Your task to perform on an android device: change keyboard looks Image 0: 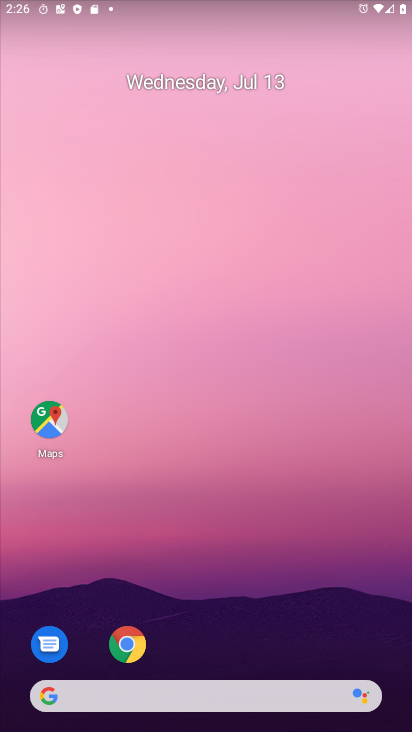
Step 0: drag from (210, 419) to (252, 10)
Your task to perform on an android device: change keyboard looks Image 1: 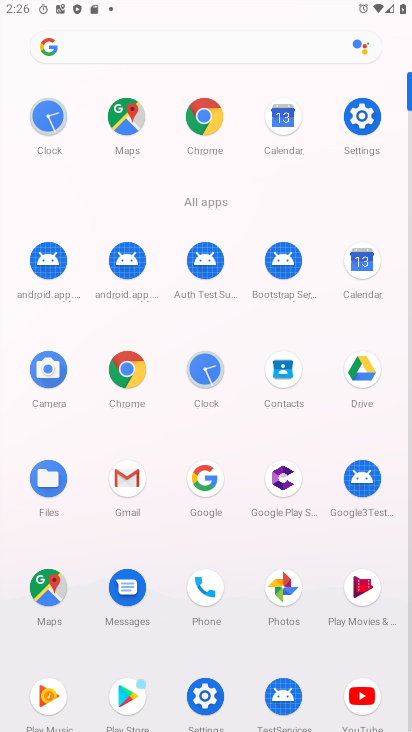
Step 1: click (357, 122)
Your task to perform on an android device: change keyboard looks Image 2: 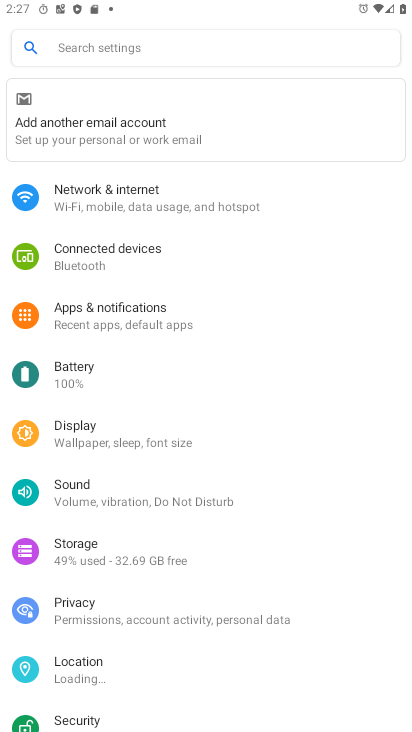
Step 2: drag from (153, 646) to (276, 8)
Your task to perform on an android device: change keyboard looks Image 3: 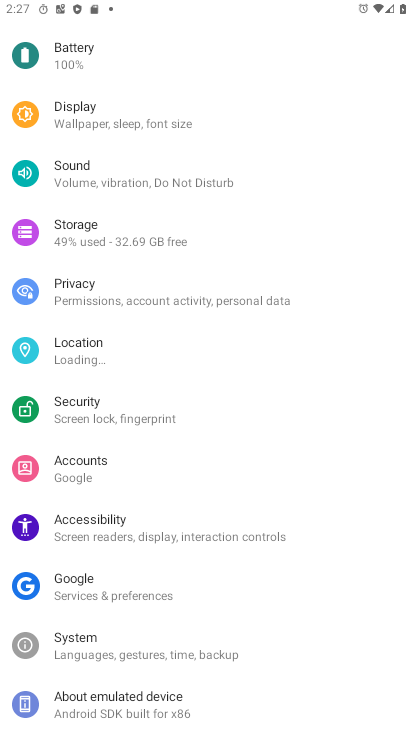
Step 3: click (89, 646)
Your task to perform on an android device: change keyboard looks Image 4: 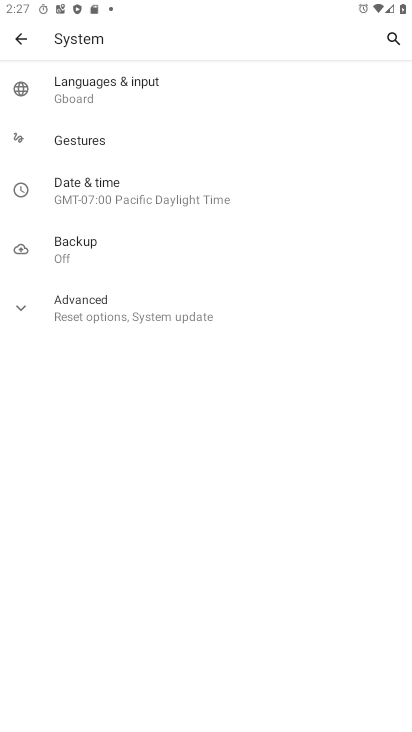
Step 4: click (88, 74)
Your task to perform on an android device: change keyboard looks Image 5: 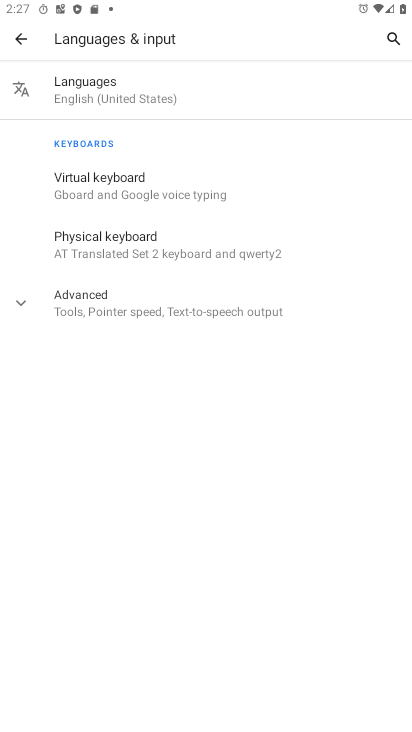
Step 5: click (104, 184)
Your task to perform on an android device: change keyboard looks Image 6: 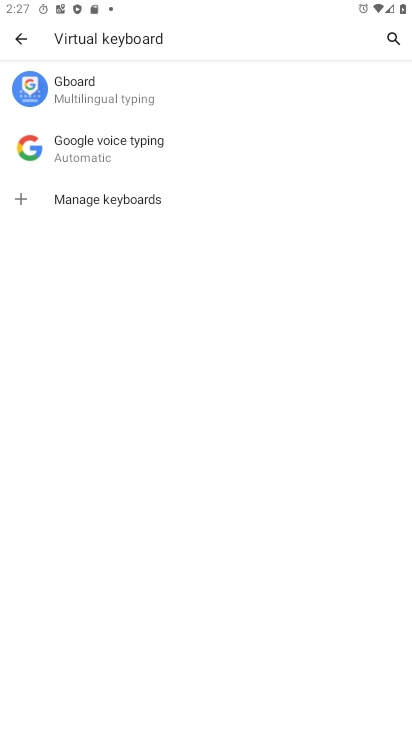
Step 6: click (101, 82)
Your task to perform on an android device: change keyboard looks Image 7: 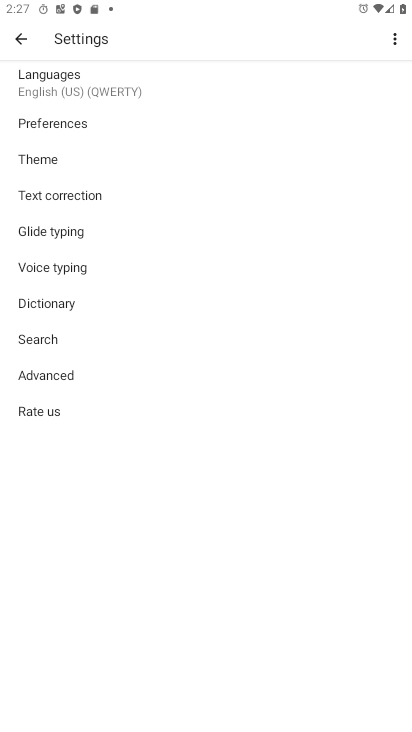
Step 7: click (87, 81)
Your task to perform on an android device: change keyboard looks Image 8: 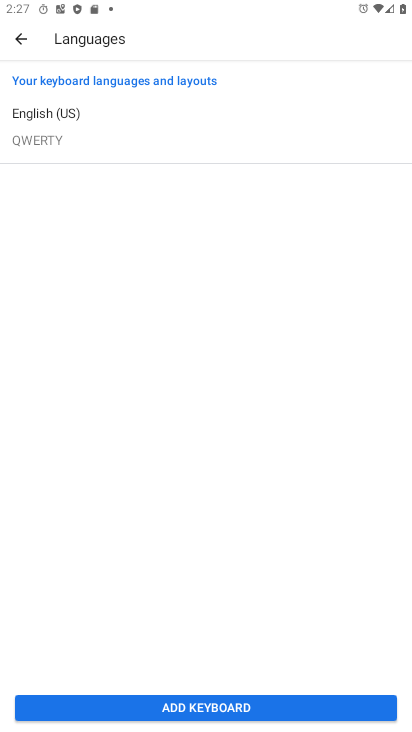
Step 8: click (19, 47)
Your task to perform on an android device: change keyboard looks Image 9: 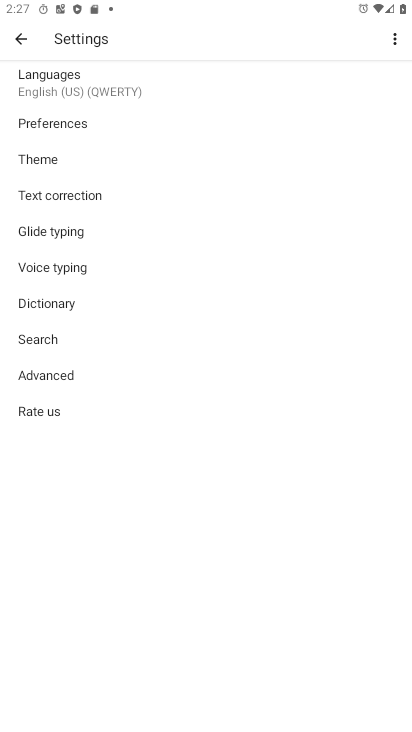
Step 9: click (66, 155)
Your task to perform on an android device: change keyboard looks Image 10: 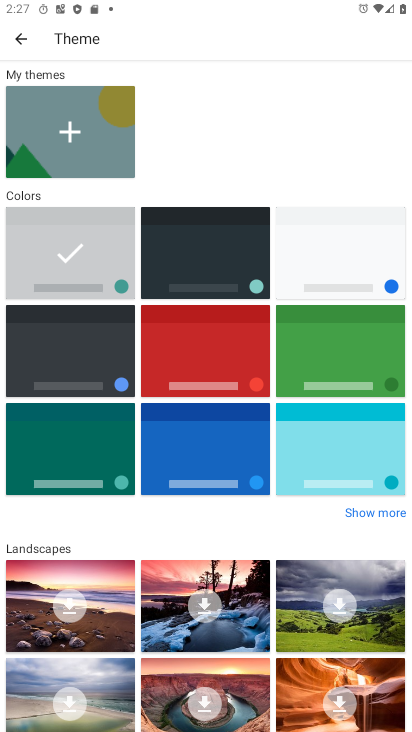
Step 10: click (208, 358)
Your task to perform on an android device: change keyboard looks Image 11: 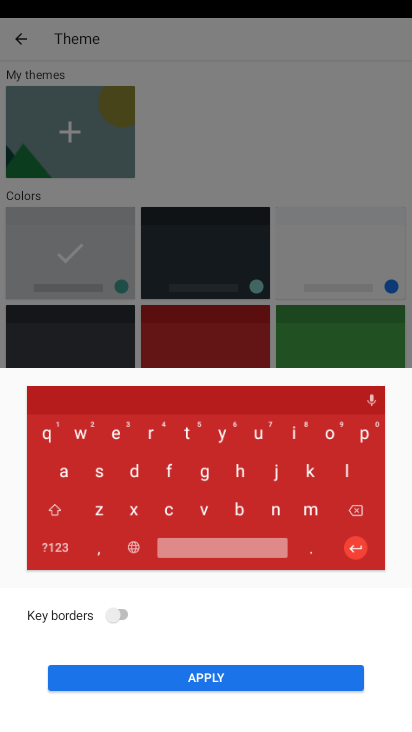
Step 11: click (179, 664)
Your task to perform on an android device: change keyboard looks Image 12: 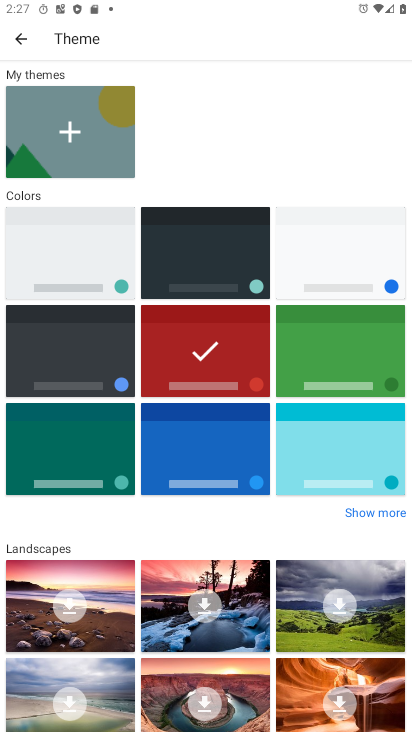
Step 12: task complete